Your task to perform on an android device: check storage Image 0: 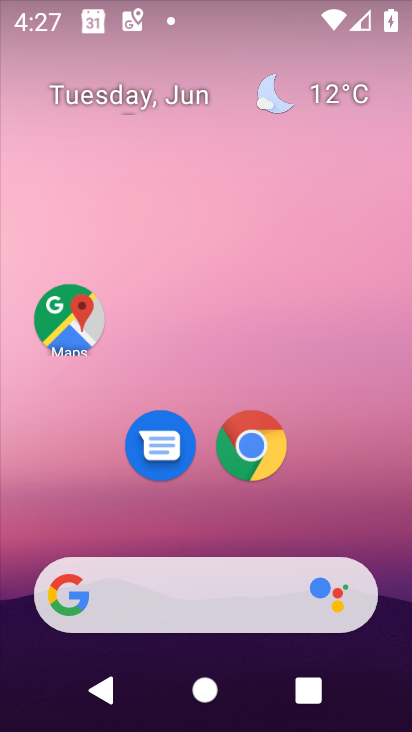
Step 0: drag from (353, 528) to (331, 50)
Your task to perform on an android device: check storage Image 1: 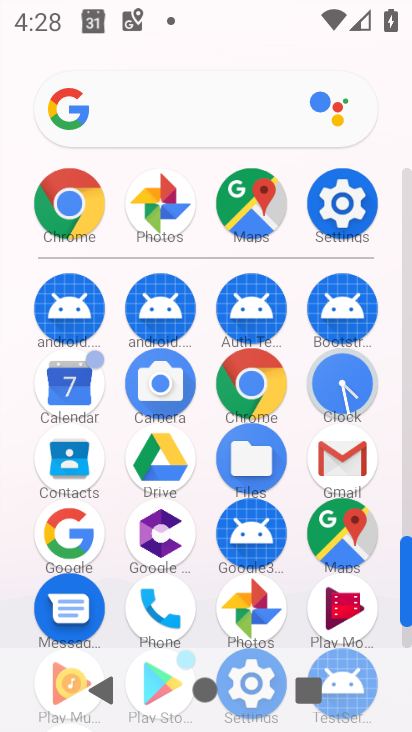
Step 1: click (327, 213)
Your task to perform on an android device: check storage Image 2: 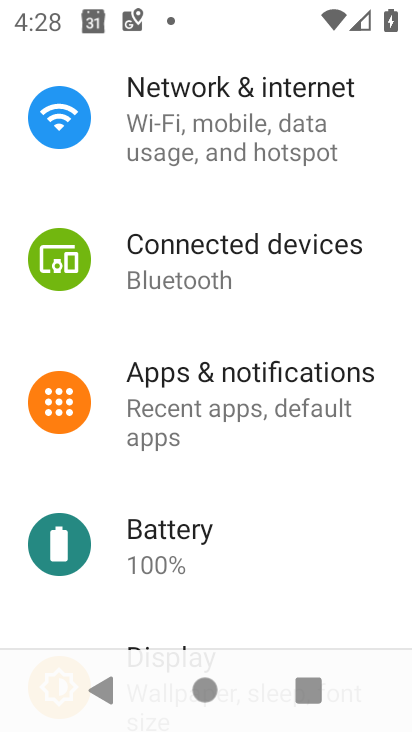
Step 2: drag from (233, 234) to (192, 656)
Your task to perform on an android device: check storage Image 3: 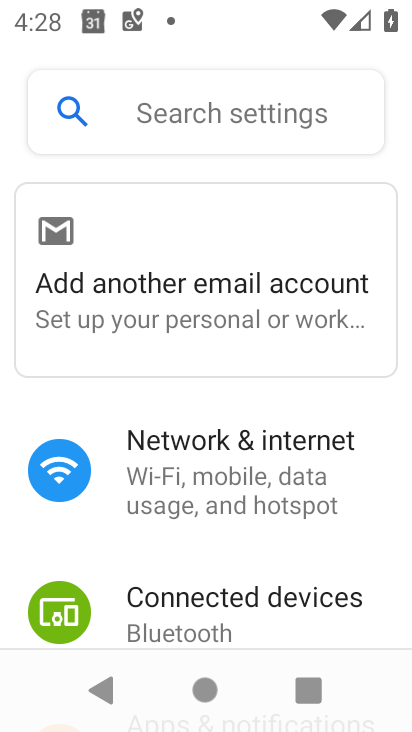
Step 3: drag from (187, 518) to (256, 140)
Your task to perform on an android device: check storage Image 4: 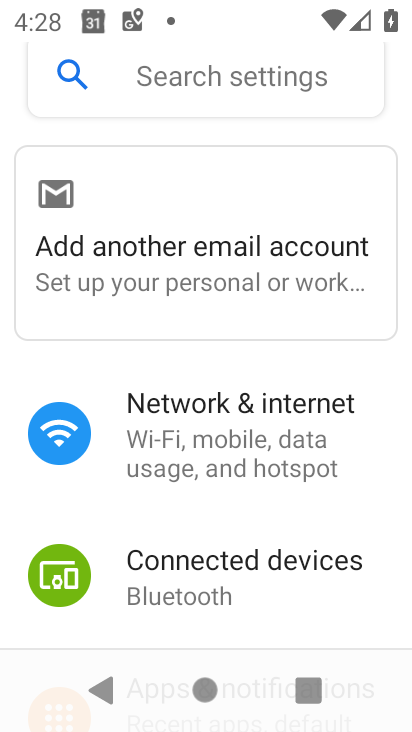
Step 4: drag from (177, 552) to (194, 126)
Your task to perform on an android device: check storage Image 5: 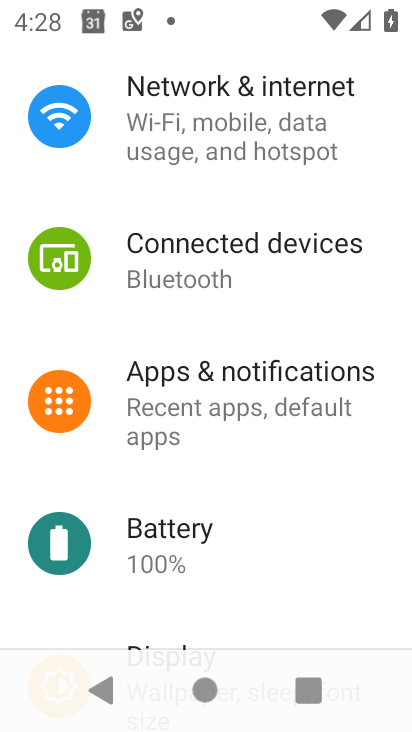
Step 5: drag from (190, 554) to (229, 87)
Your task to perform on an android device: check storage Image 6: 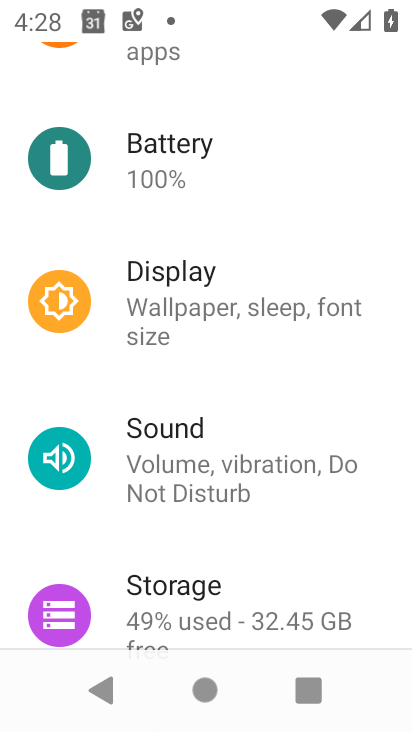
Step 6: click (189, 595)
Your task to perform on an android device: check storage Image 7: 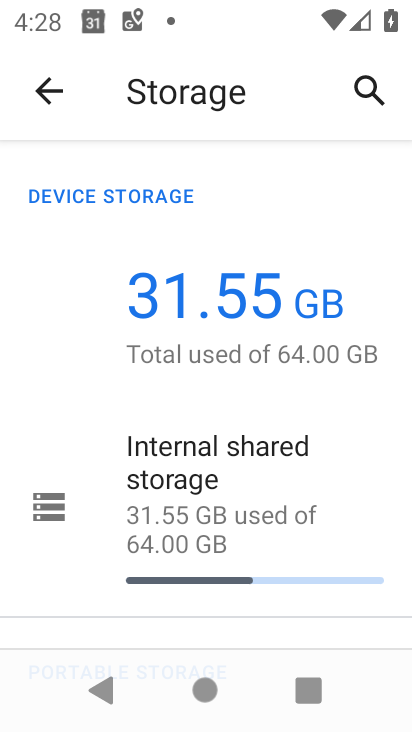
Step 7: click (209, 550)
Your task to perform on an android device: check storage Image 8: 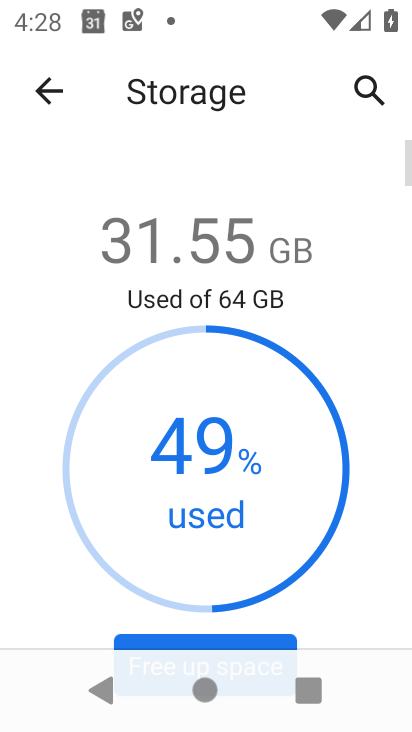
Step 8: task complete